Your task to perform on an android device: What is the news today? Image 0: 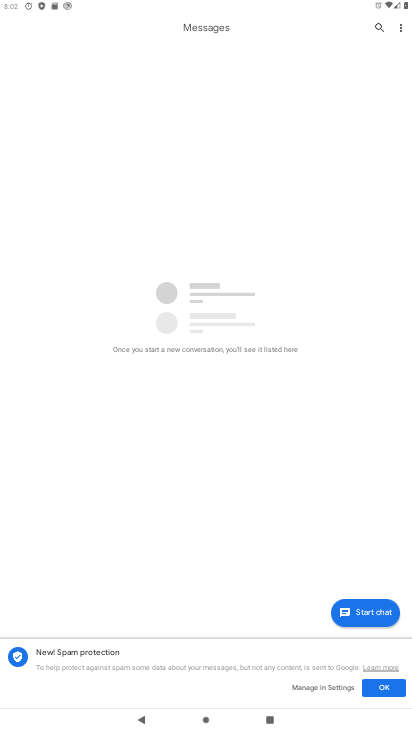
Step 0: press home button
Your task to perform on an android device: What is the news today? Image 1: 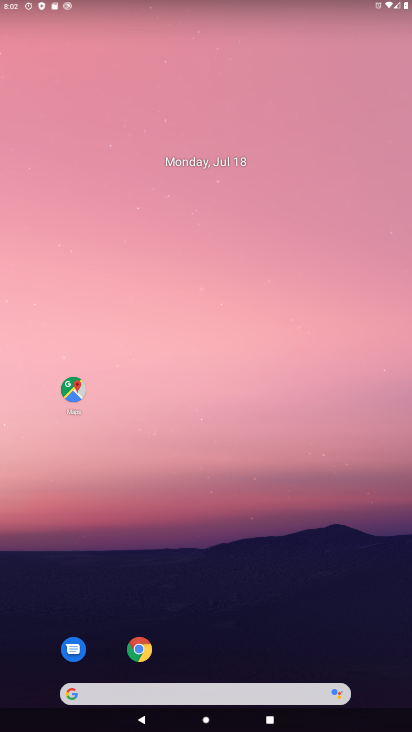
Step 1: drag from (294, 627) to (255, 51)
Your task to perform on an android device: What is the news today? Image 2: 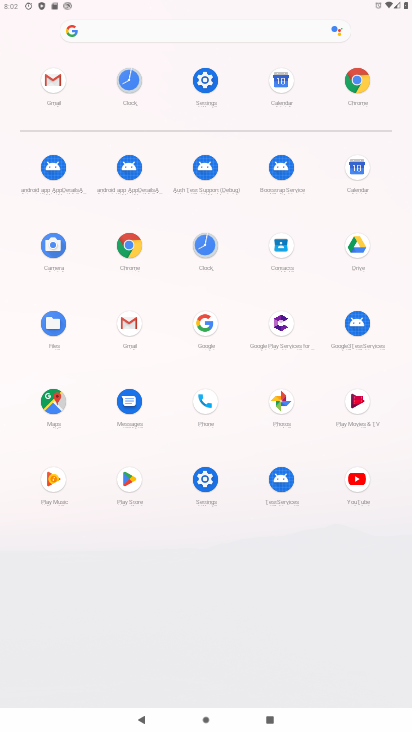
Step 2: click (361, 78)
Your task to perform on an android device: What is the news today? Image 3: 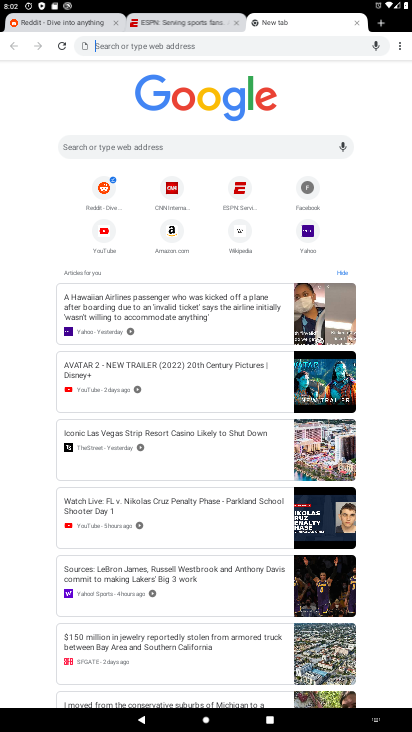
Step 3: click (254, 49)
Your task to perform on an android device: What is the news today? Image 4: 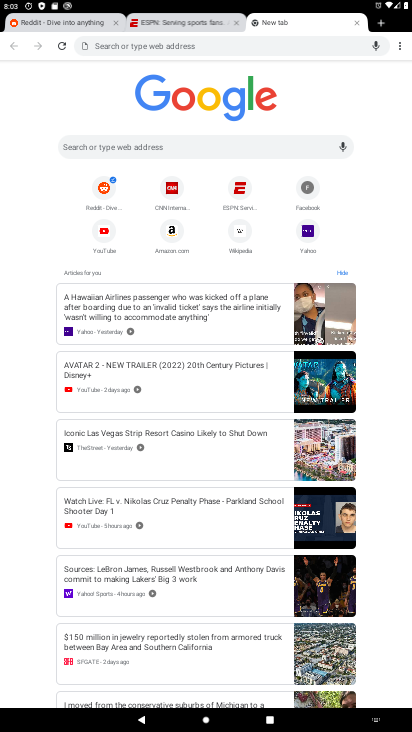
Step 4: type "news"
Your task to perform on an android device: What is the news today? Image 5: 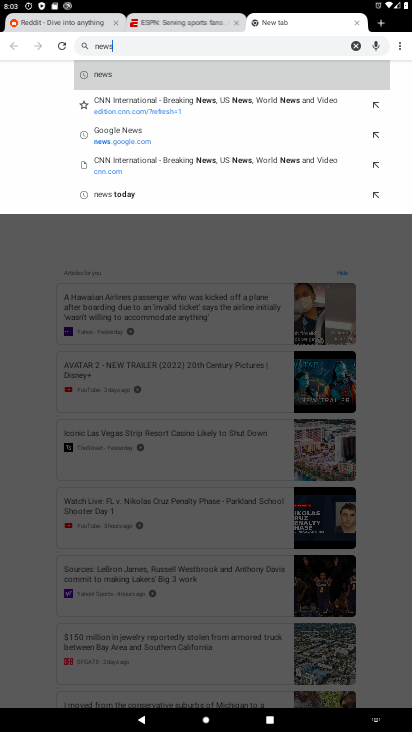
Step 5: click (129, 145)
Your task to perform on an android device: What is the news today? Image 6: 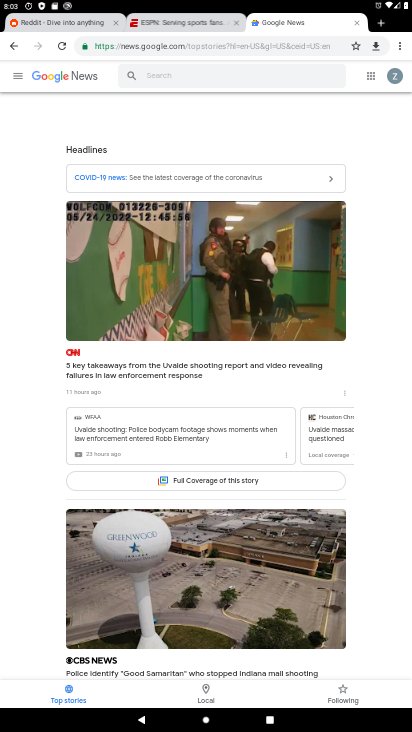
Step 6: task complete